Your task to perform on an android device: Go to calendar. Show me events next week Image 0: 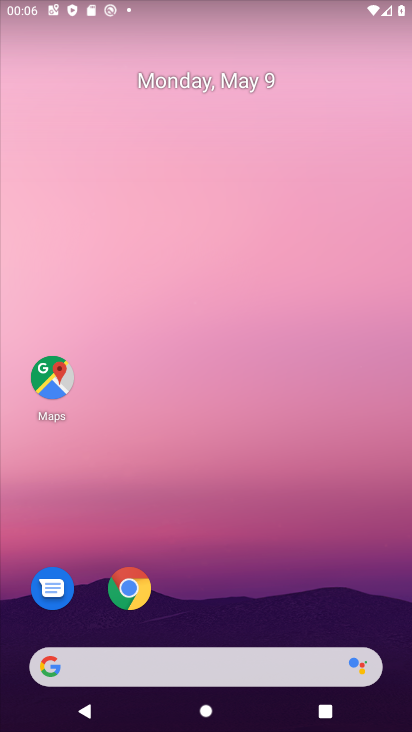
Step 0: drag from (269, 553) to (294, 10)
Your task to perform on an android device: Go to calendar. Show me events next week Image 1: 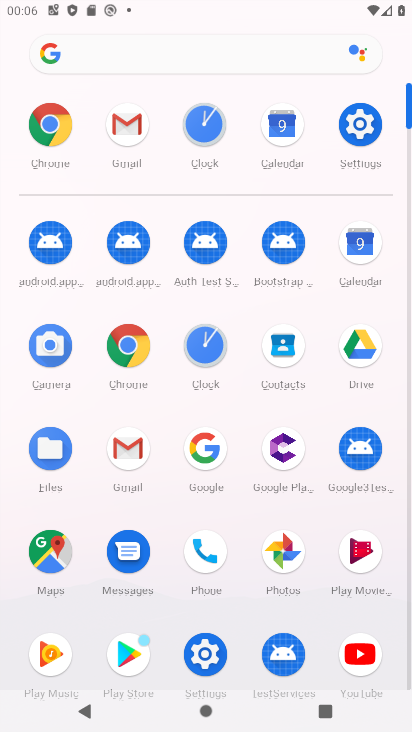
Step 1: click (365, 235)
Your task to perform on an android device: Go to calendar. Show me events next week Image 2: 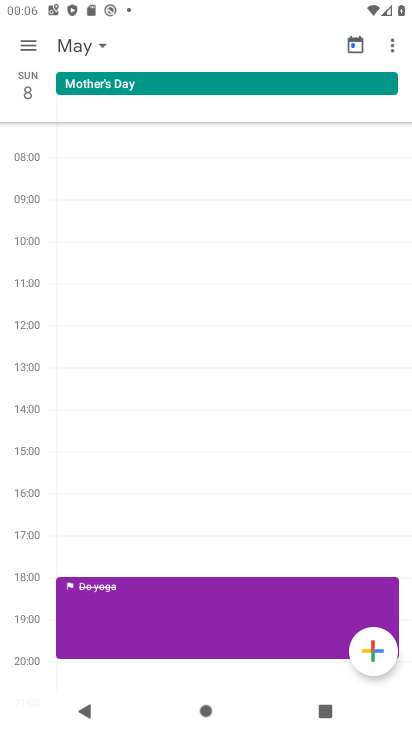
Step 2: click (30, 40)
Your task to perform on an android device: Go to calendar. Show me events next week Image 3: 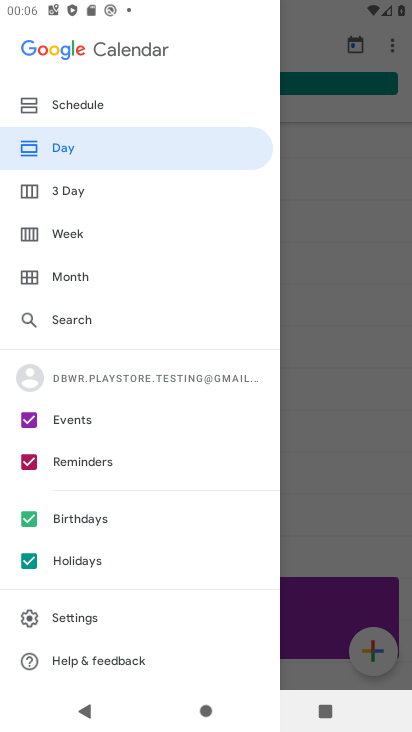
Step 3: click (57, 236)
Your task to perform on an android device: Go to calendar. Show me events next week Image 4: 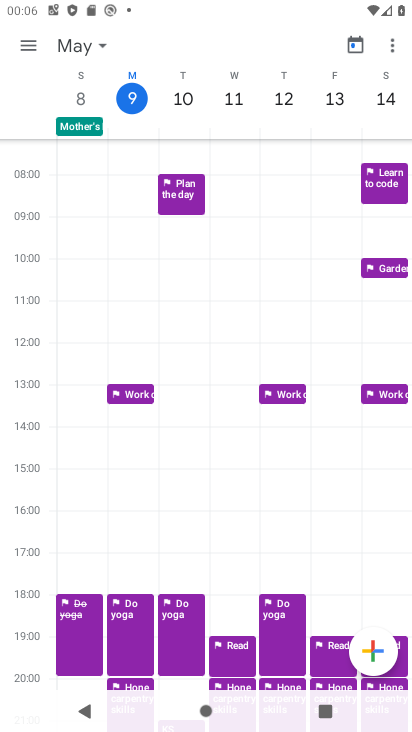
Step 4: click (99, 48)
Your task to perform on an android device: Go to calendar. Show me events next week Image 5: 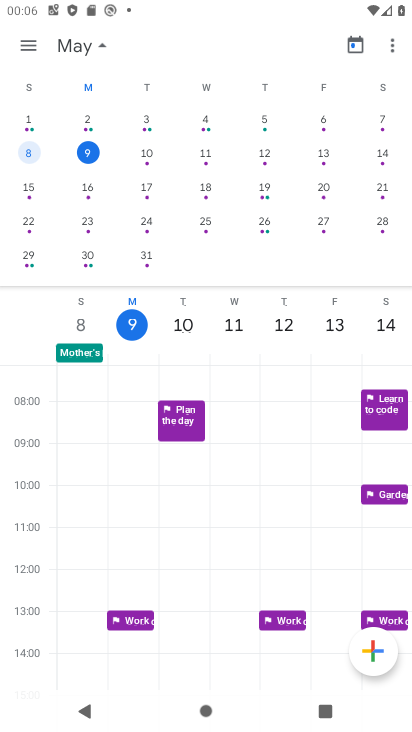
Step 5: click (140, 186)
Your task to perform on an android device: Go to calendar. Show me events next week Image 6: 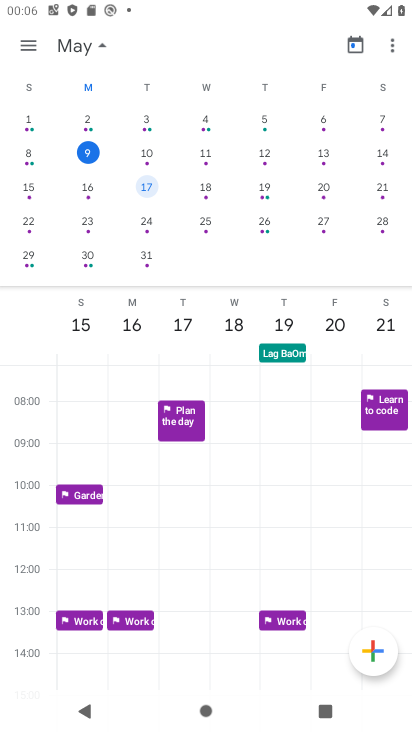
Step 6: task complete